Your task to perform on an android device: Open Maps and search for coffee Image 0: 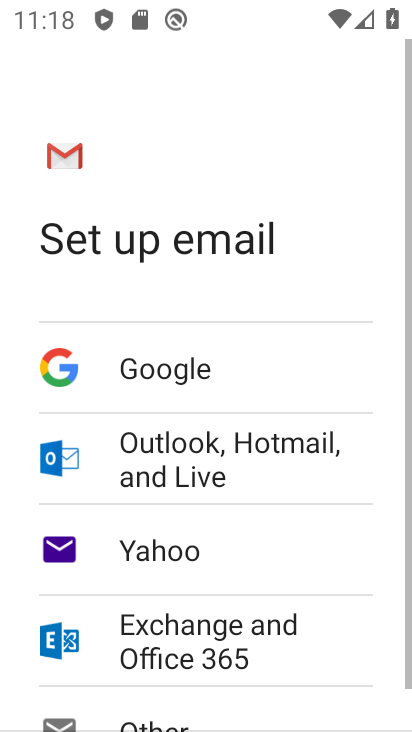
Step 0: task complete